Your task to perform on an android device: Open settings Image 0: 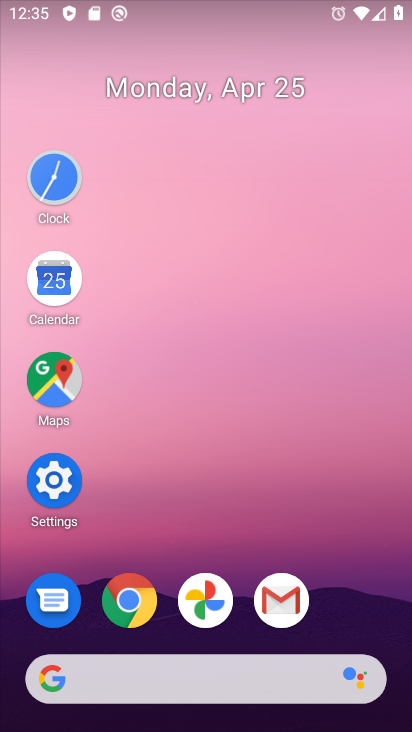
Step 0: click (49, 476)
Your task to perform on an android device: Open settings Image 1: 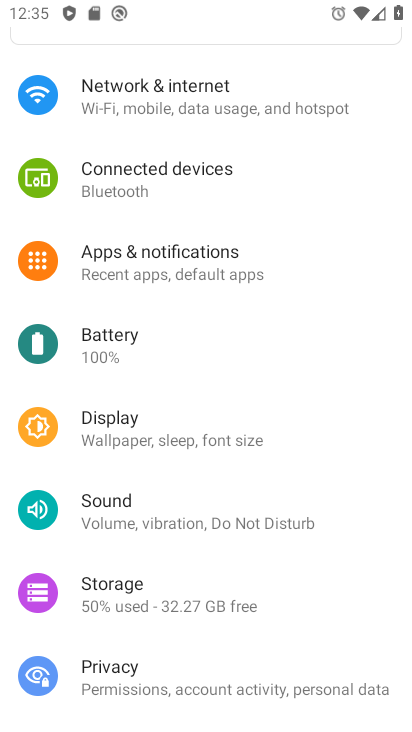
Step 1: task complete